Your task to perform on an android device: manage bookmarks in the chrome app Image 0: 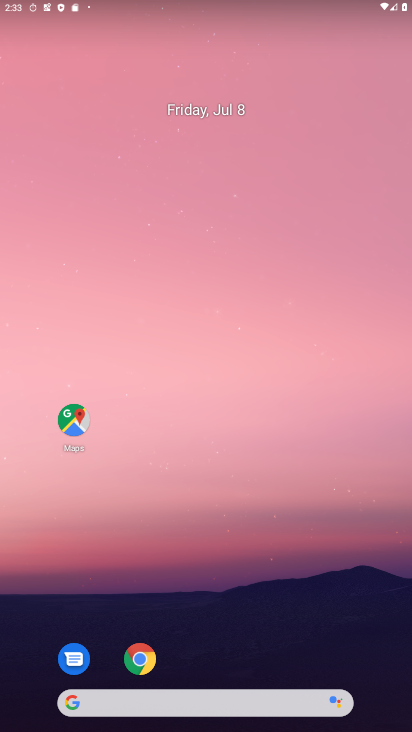
Step 0: click (141, 655)
Your task to perform on an android device: manage bookmarks in the chrome app Image 1: 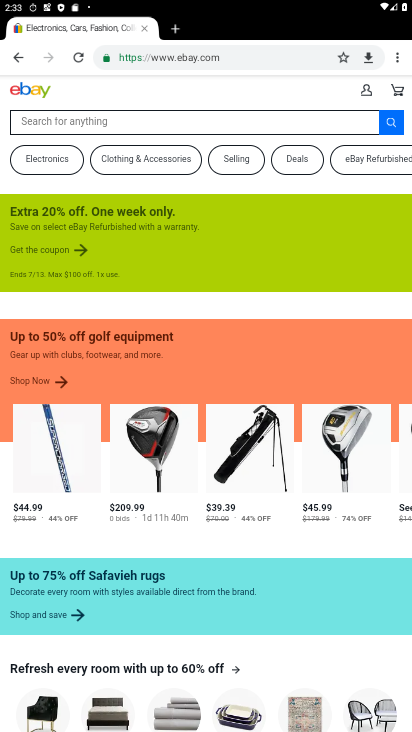
Step 1: click (394, 56)
Your task to perform on an android device: manage bookmarks in the chrome app Image 2: 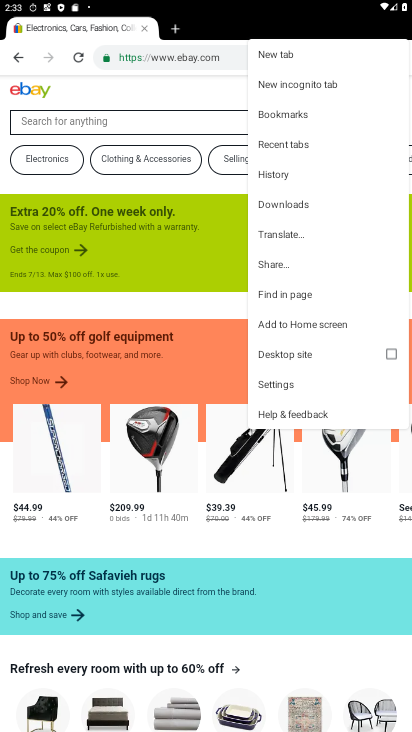
Step 2: click (289, 114)
Your task to perform on an android device: manage bookmarks in the chrome app Image 3: 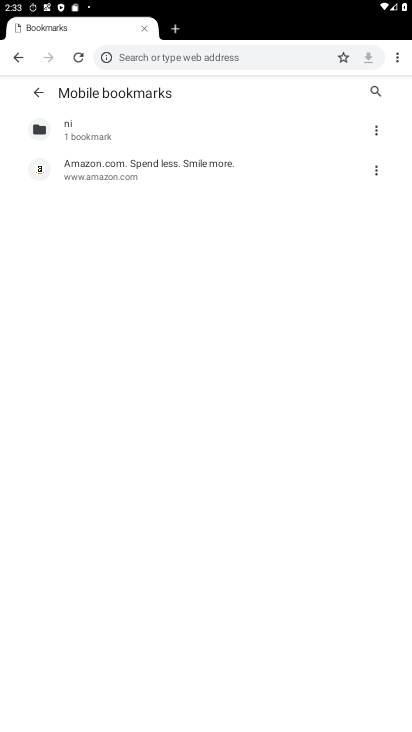
Step 3: click (376, 172)
Your task to perform on an android device: manage bookmarks in the chrome app Image 4: 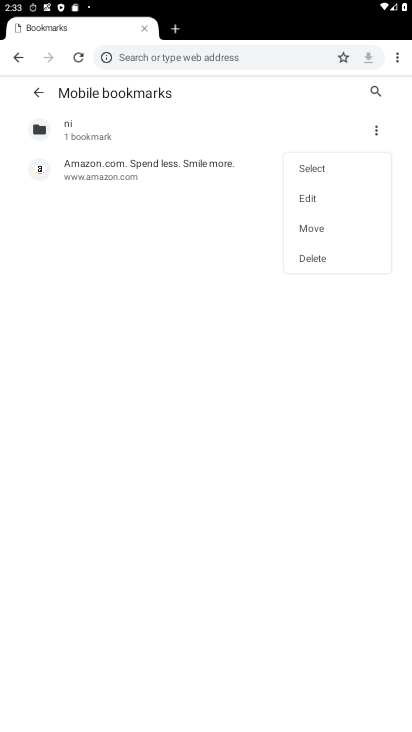
Step 4: click (325, 258)
Your task to perform on an android device: manage bookmarks in the chrome app Image 5: 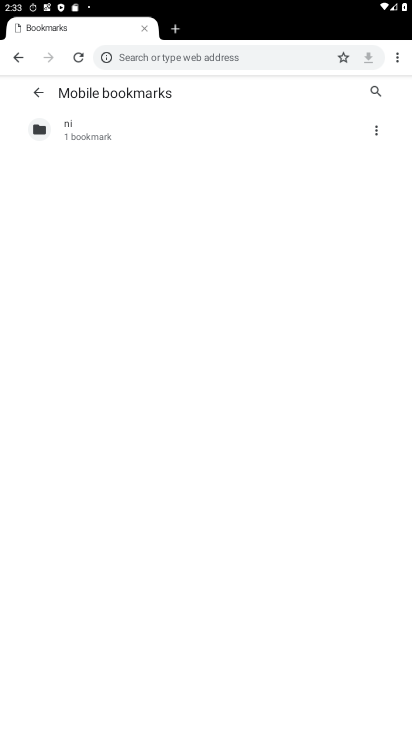
Step 5: task complete